Your task to perform on an android device: Open display settings Image 0: 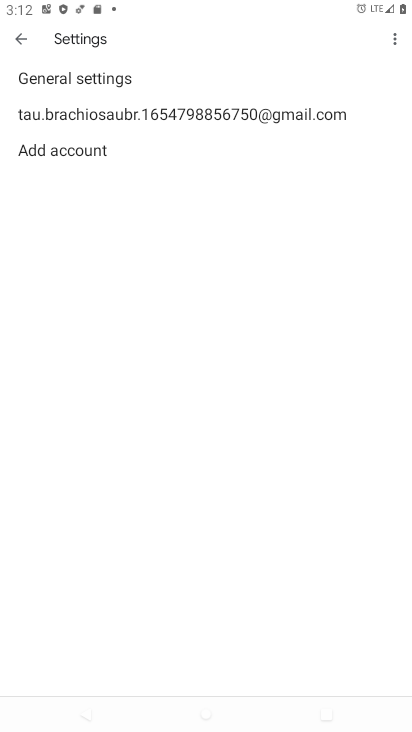
Step 0: press home button
Your task to perform on an android device: Open display settings Image 1: 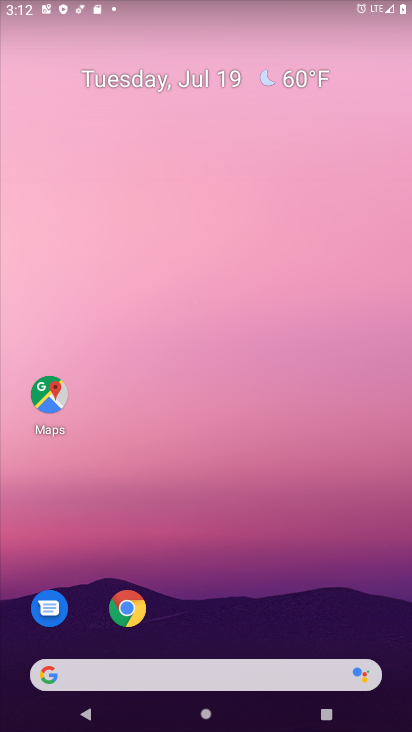
Step 1: drag from (237, 419) to (231, 0)
Your task to perform on an android device: Open display settings Image 2: 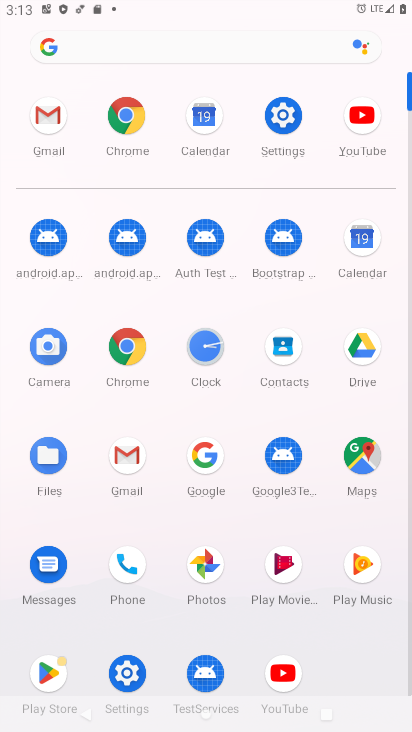
Step 2: click (286, 115)
Your task to perform on an android device: Open display settings Image 3: 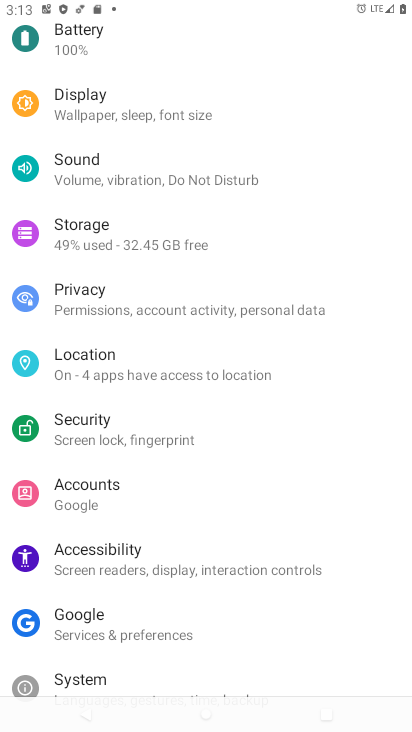
Step 3: click (105, 118)
Your task to perform on an android device: Open display settings Image 4: 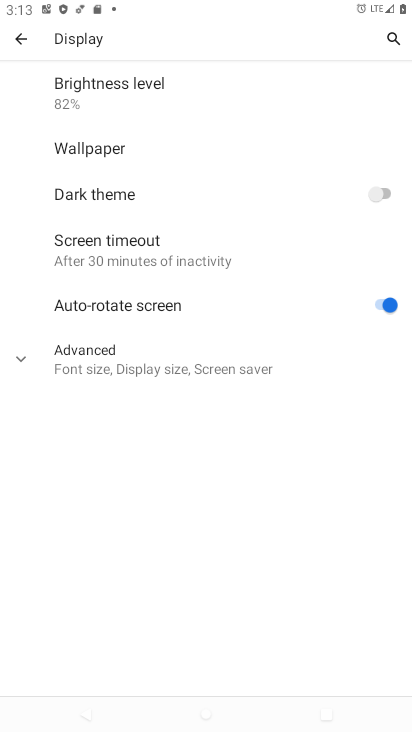
Step 4: task complete